Your task to perform on an android device: Go to network settings Image 0: 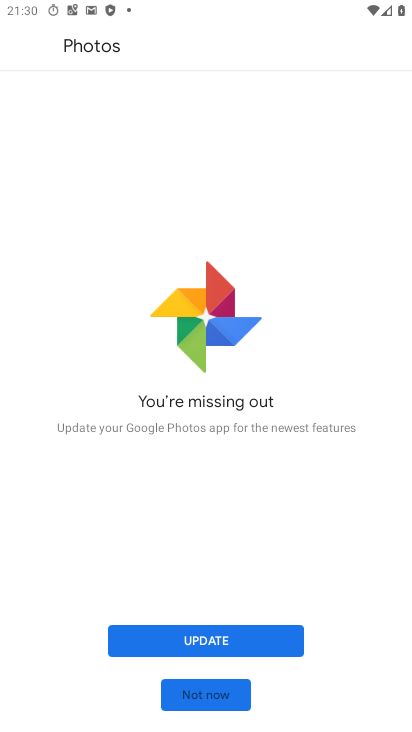
Step 0: press home button
Your task to perform on an android device: Go to network settings Image 1: 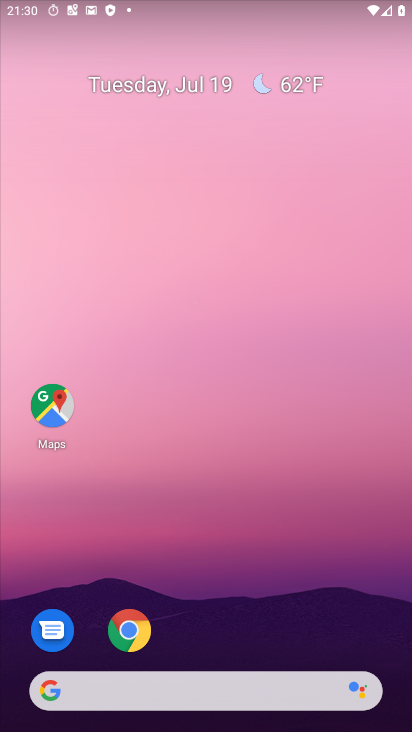
Step 1: drag from (54, 687) to (195, 187)
Your task to perform on an android device: Go to network settings Image 2: 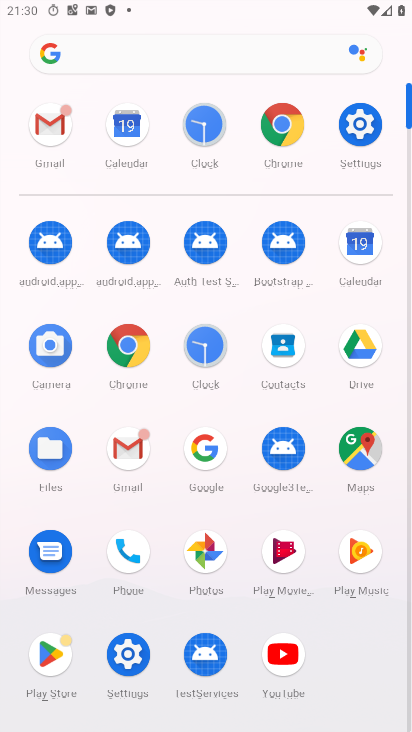
Step 2: click (118, 683)
Your task to perform on an android device: Go to network settings Image 3: 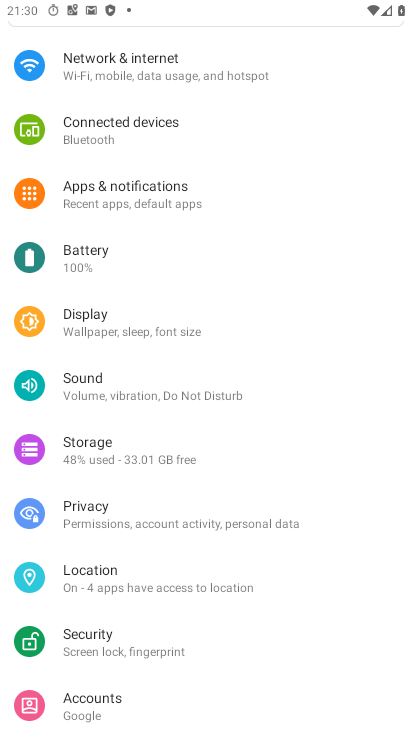
Step 3: click (133, 75)
Your task to perform on an android device: Go to network settings Image 4: 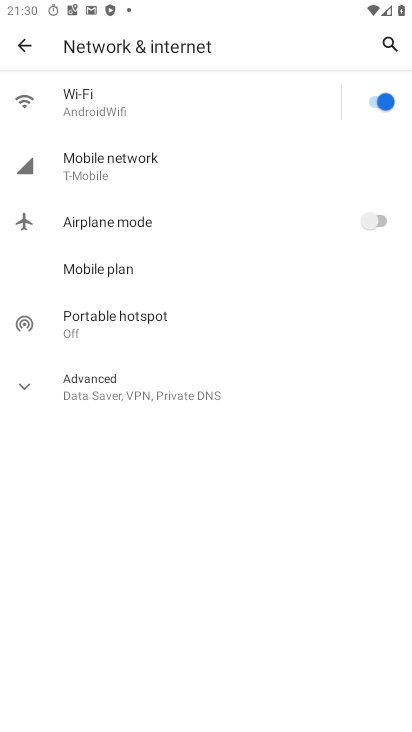
Step 4: task complete